Your task to perform on an android device: change alarm snooze length Image 0: 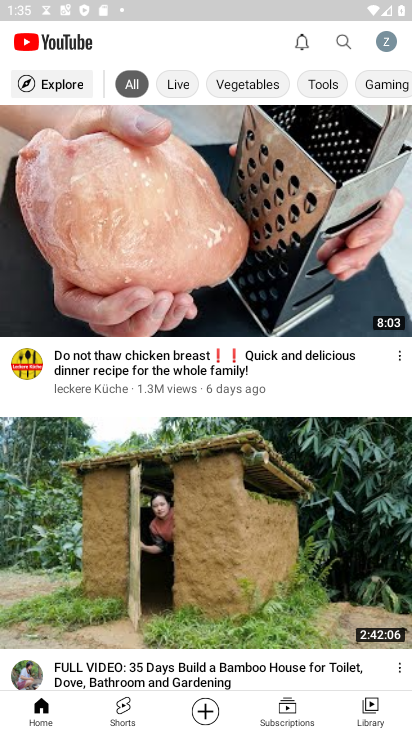
Step 0: press home button
Your task to perform on an android device: change alarm snooze length Image 1: 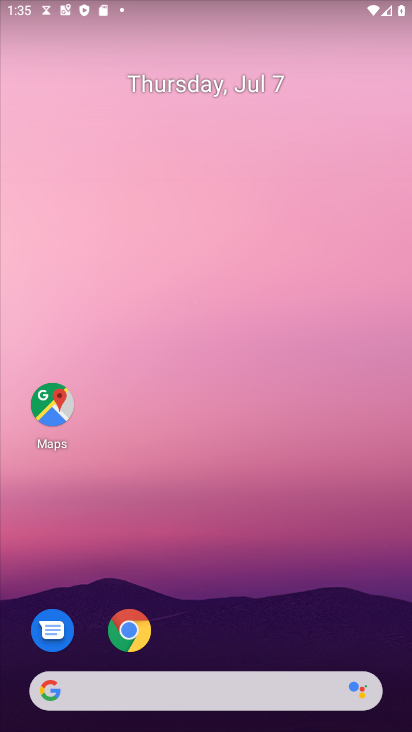
Step 1: drag from (276, 597) to (247, 86)
Your task to perform on an android device: change alarm snooze length Image 2: 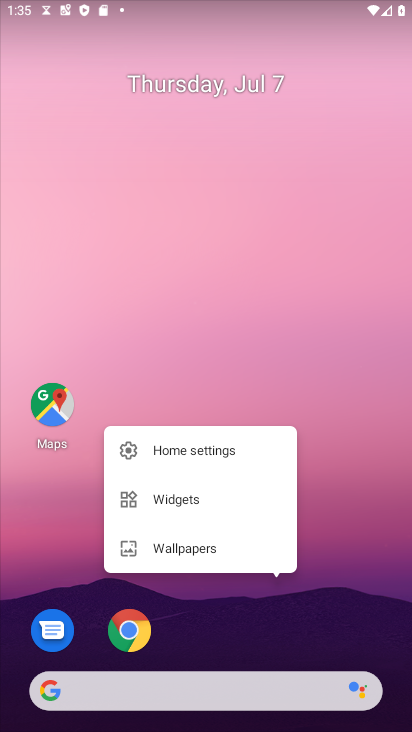
Step 2: click (375, 595)
Your task to perform on an android device: change alarm snooze length Image 3: 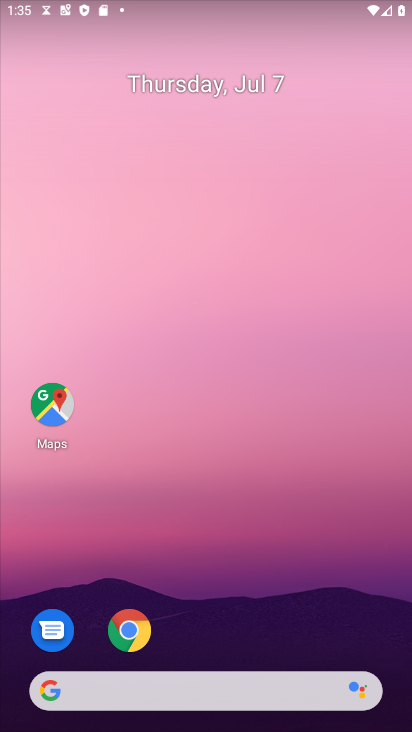
Step 3: drag from (375, 595) to (315, 231)
Your task to perform on an android device: change alarm snooze length Image 4: 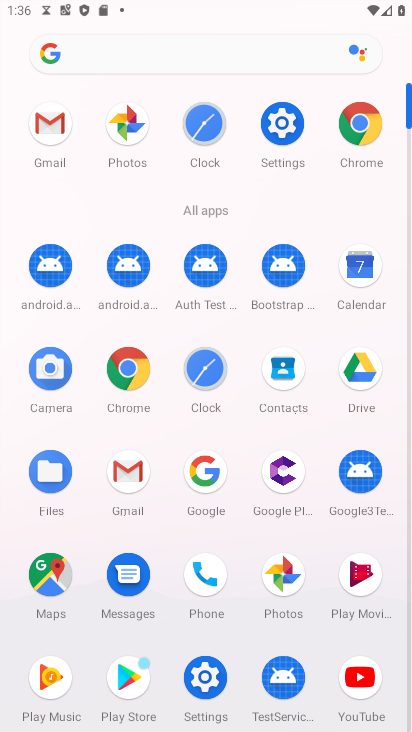
Step 4: click (204, 122)
Your task to perform on an android device: change alarm snooze length Image 5: 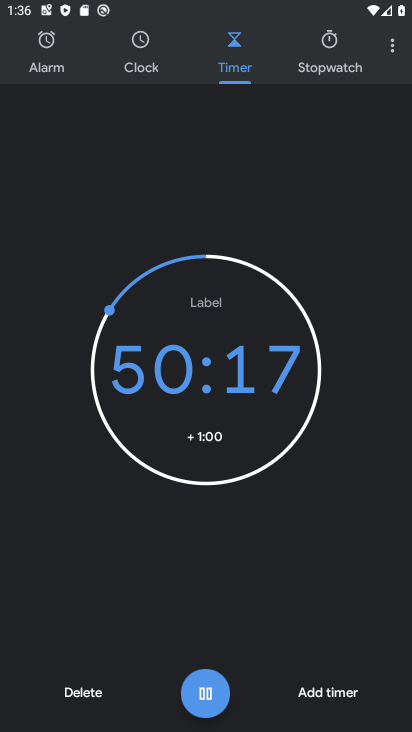
Step 5: click (396, 42)
Your task to perform on an android device: change alarm snooze length Image 6: 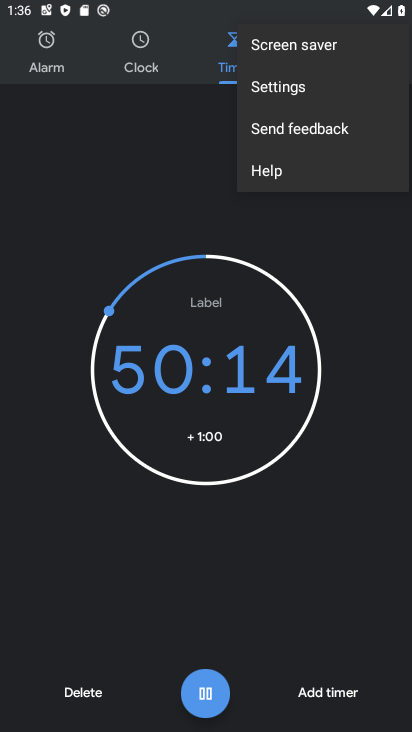
Step 6: click (348, 95)
Your task to perform on an android device: change alarm snooze length Image 7: 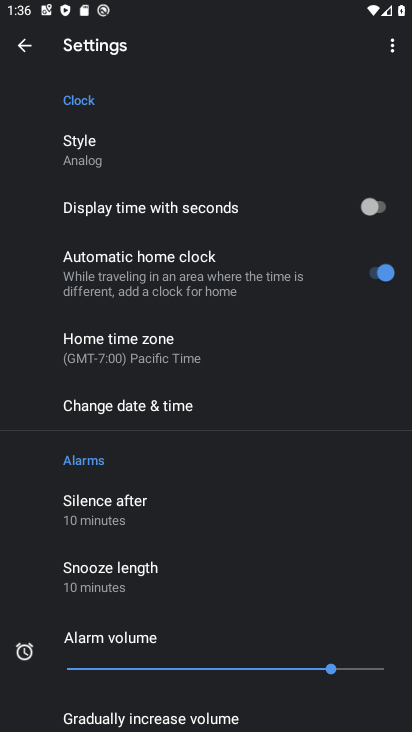
Step 7: click (205, 564)
Your task to perform on an android device: change alarm snooze length Image 8: 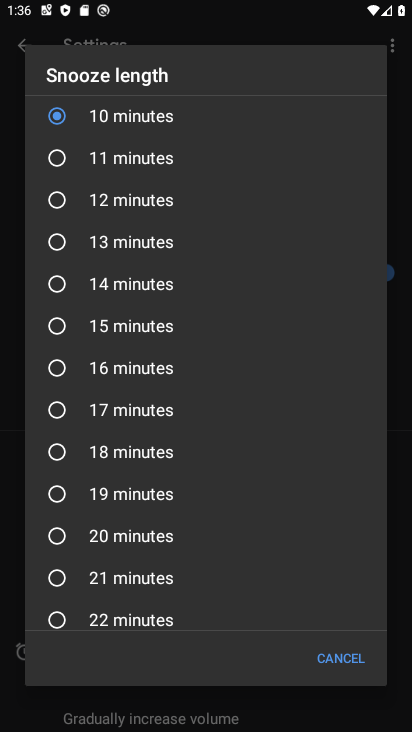
Step 8: click (165, 455)
Your task to perform on an android device: change alarm snooze length Image 9: 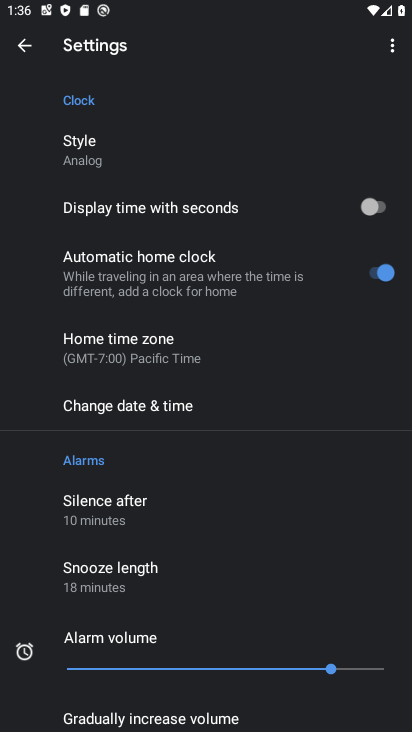
Step 9: task complete